Your task to perform on an android device: Go to wifi settings Image 0: 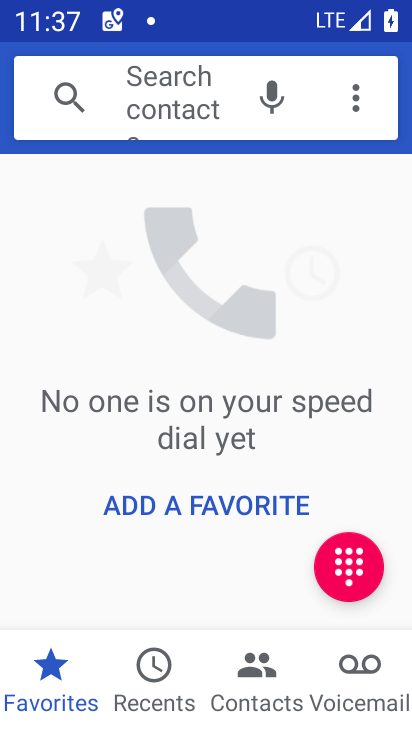
Step 0: press home button
Your task to perform on an android device: Go to wifi settings Image 1: 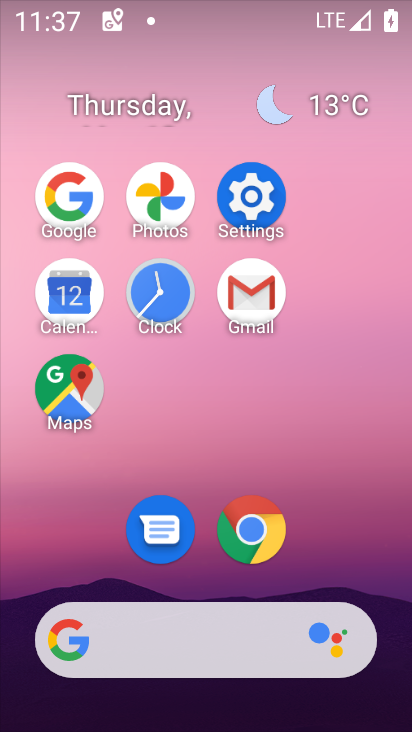
Step 1: click (271, 196)
Your task to perform on an android device: Go to wifi settings Image 2: 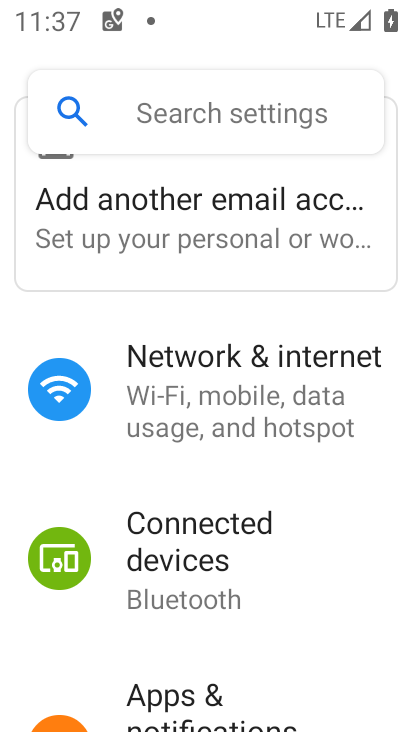
Step 2: click (193, 367)
Your task to perform on an android device: Go to wifi settings Image 3: 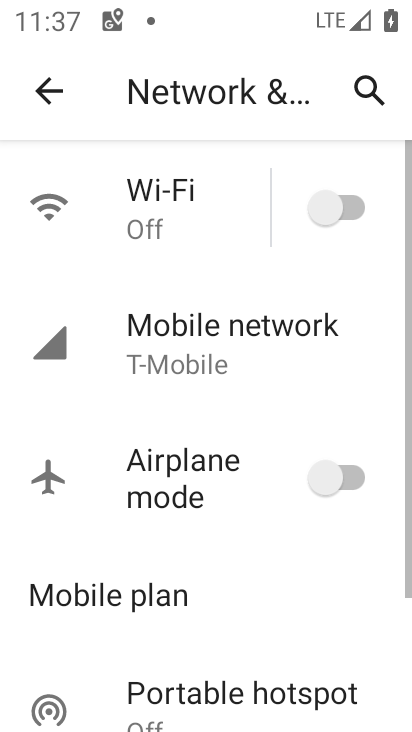
Step 3: click (188, 213)
Your task to perform on an android device: Go to wifi settings Image 4: 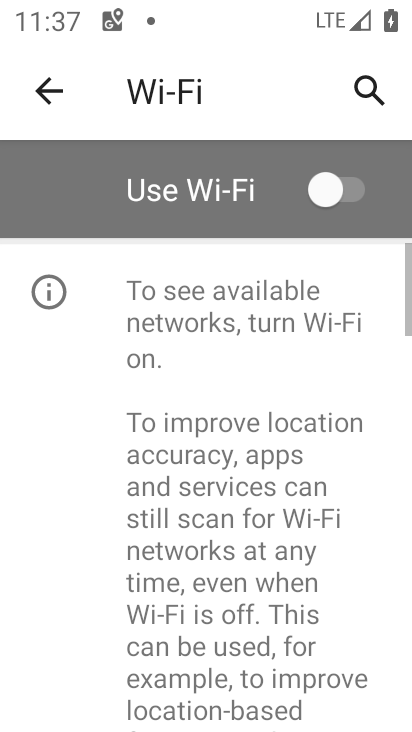
Step 4: click (329, 182)
Your task to perform on an android device: Go to wifi settings Image 5: 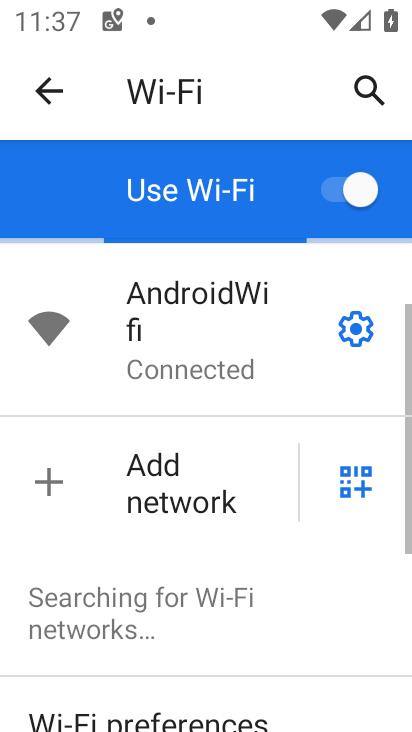
Step 5: click (354, 340)
Your task to perform on an android device: Go to wifi settings Image 6: 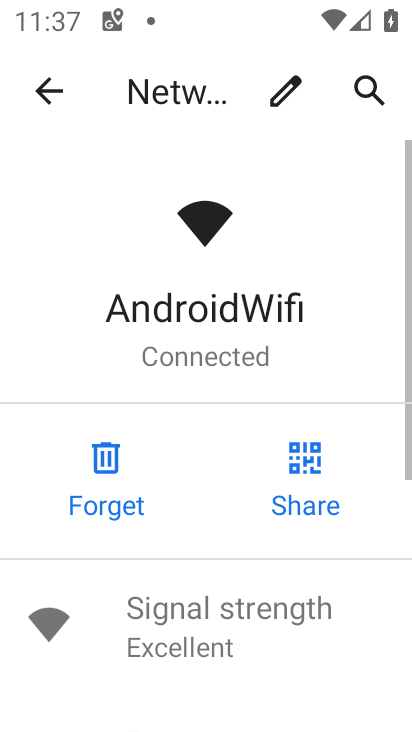
Step 6: task complete